Your task to perform on an android device: Go to Reddit.com Image 0: 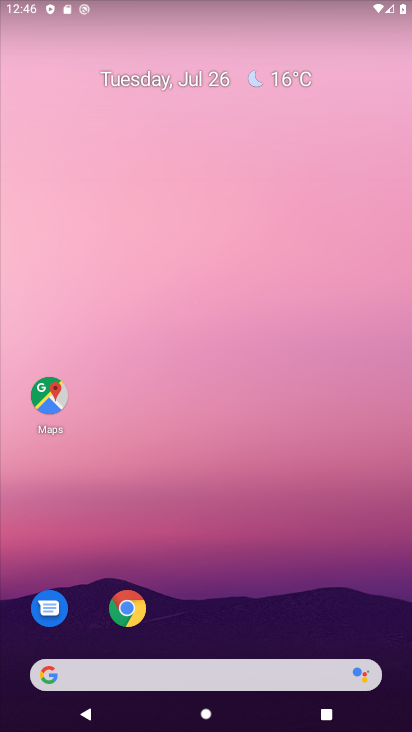
Step 0: drag from (255, 597) to (223, 69)
Your task to perform on an android device: Go to Reddit.com Image 1: 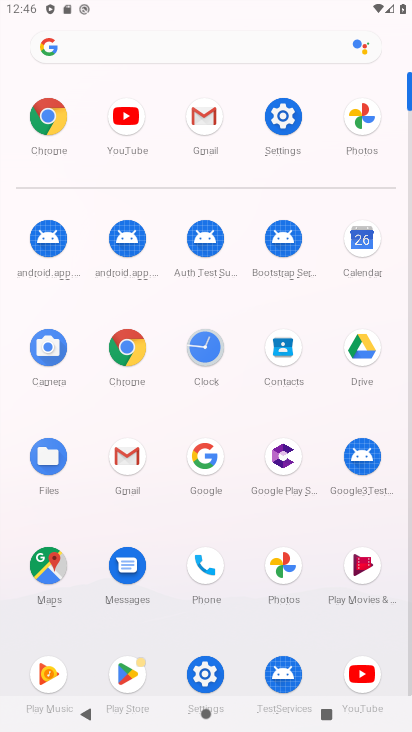
Step 1: type "reddit.com"
Your task to perform on an android device: Go to Reddit.com Image 2: 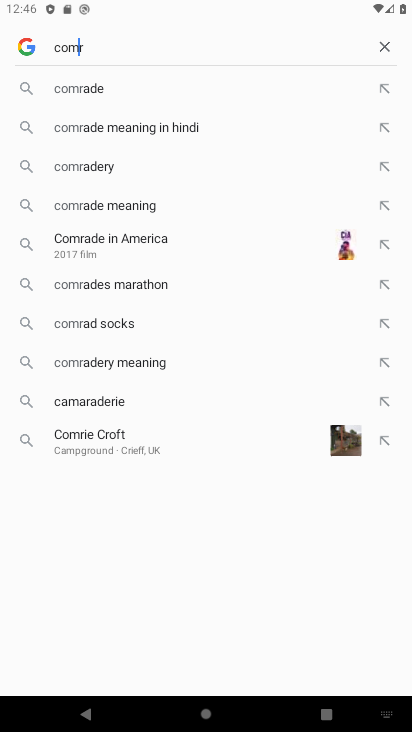
Step 2: type "reddit"
Your task to perform on an android device: Go to Reddit.com Image 3: 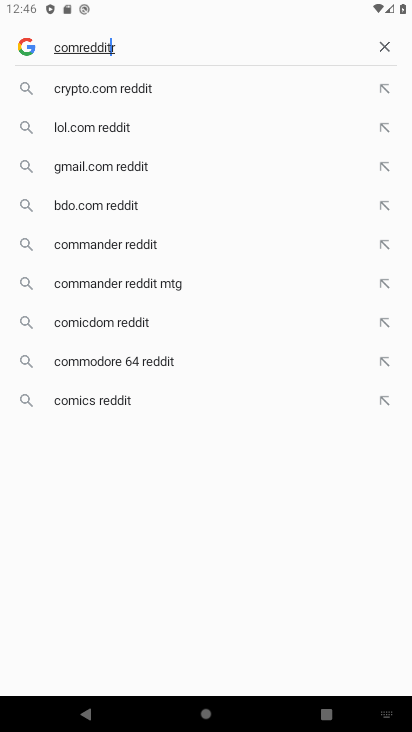
Step 3: click (200, 100)
Your task to perform on an android device: Go to Reddit.com Image 4: 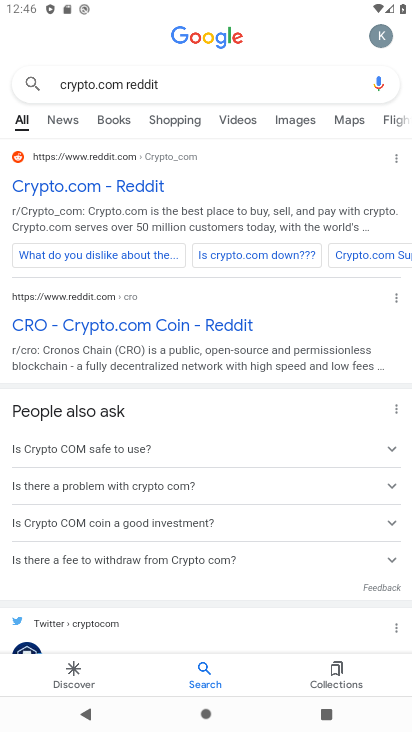
Step 4: click (99, 175)
Your task to perform on an android device: Go to Reddit.com Image 5: 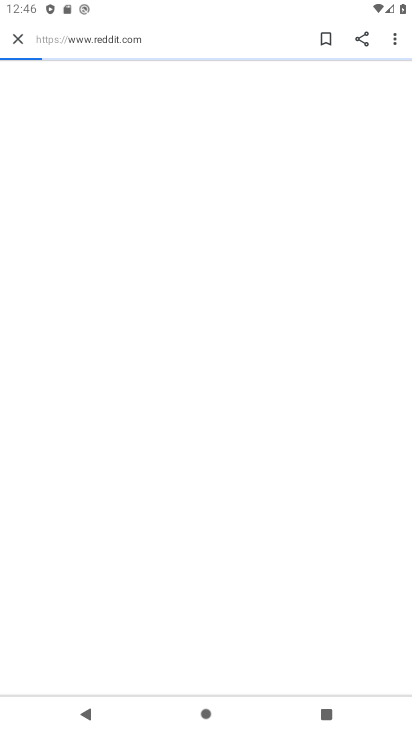
Step 5: task complete